Your task to perform on an android device: What is the news today? Image 0: 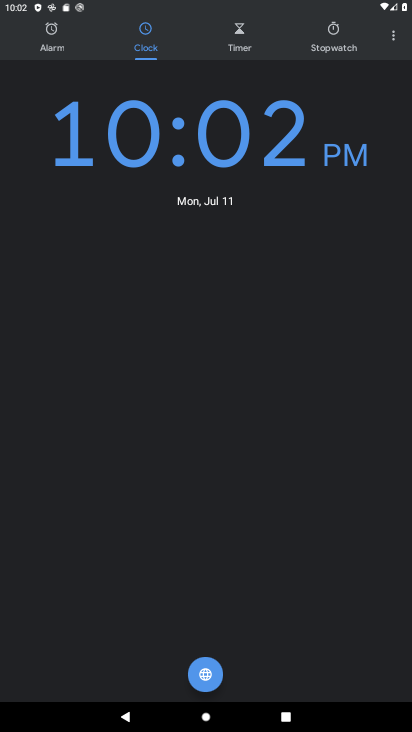
Step 0: press home button
Your task to perform on an android device: What is the news today? Image 1: 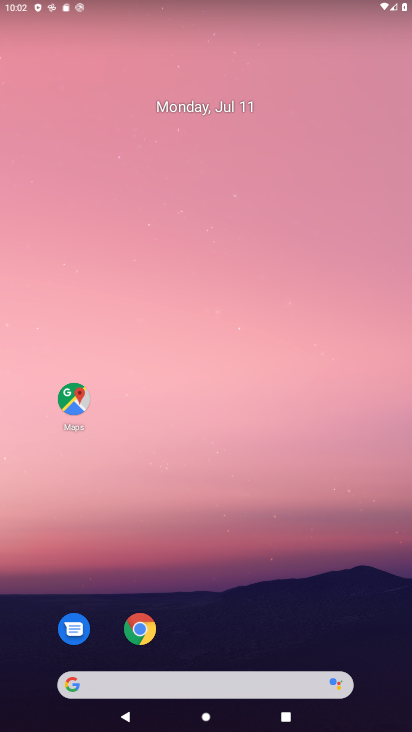
Step 1: click (134, 680)
Your task to perform on an android device: What is the news today? Image 2: 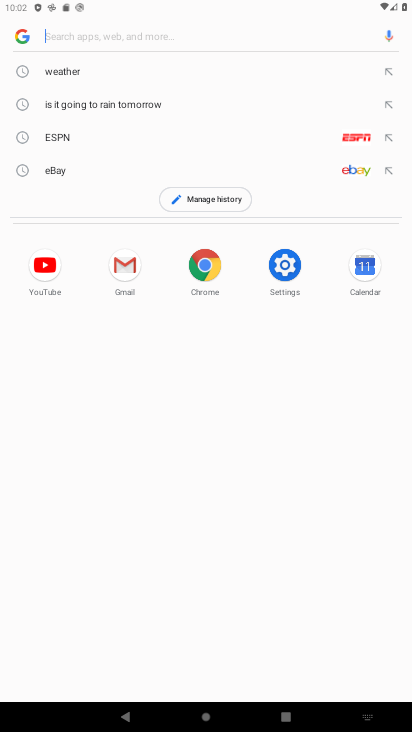
Step 2: type "news "
Your task to perform on an android device: What is the news today? Image 3: 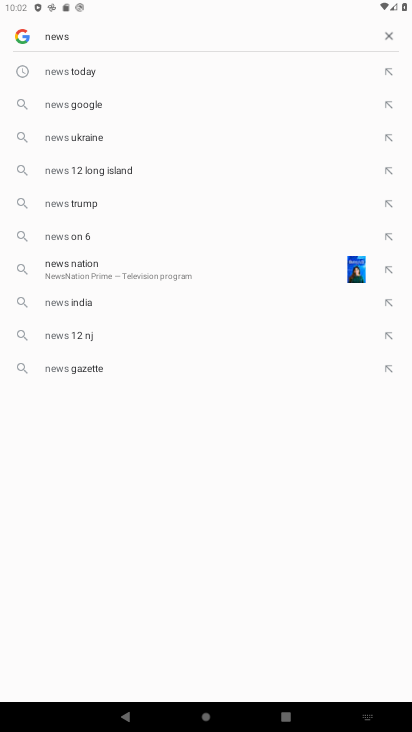
Step 3: click (154, 70)
Your task to perform on an android device: What is the news today? Image 4: 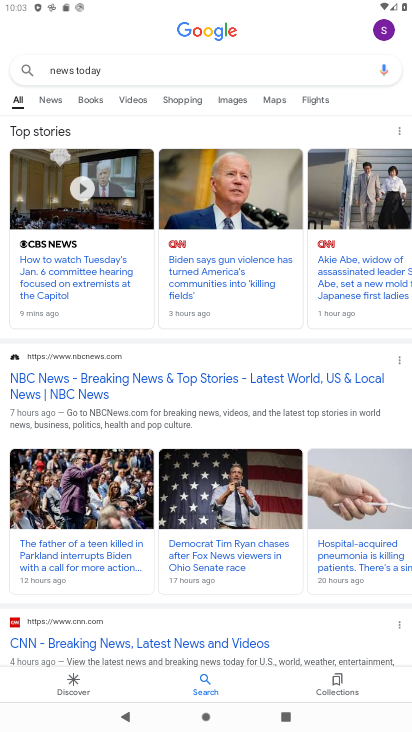
Step 4: task complete